Your task to perform on an android device: turn off picture-in-picture Image 0: 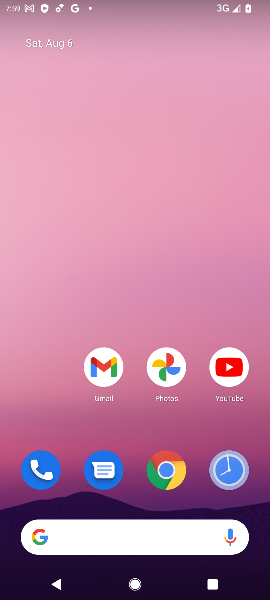
Step 0: press home button
Your task to perform on an android device: turn off picture-in-picture Image 1: 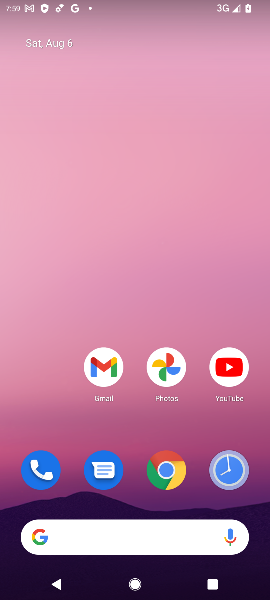
Step 1: drag from (121, 515) to (237, 88)
Your task to perform on an android device: turn off picture-in-picture Image 2: 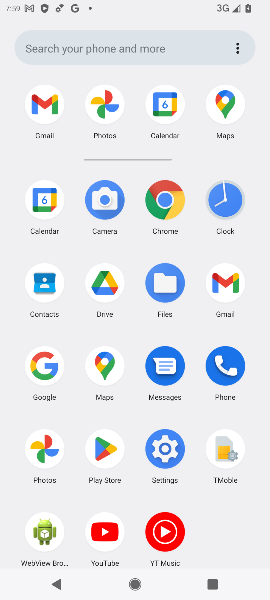
Step 2: click (173, 440)
Your task to perform on an android device: turn off picture-in-picture Image 3: 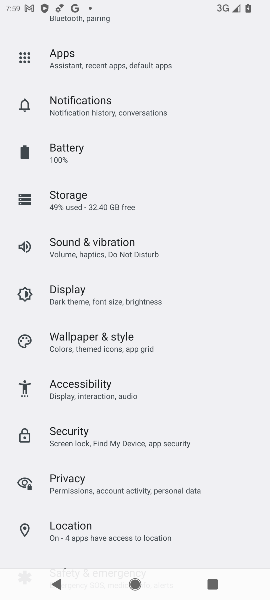
Step 3: click (121, 106)
Your task to perform on an android device: turn off picture-in-picture Image 4: 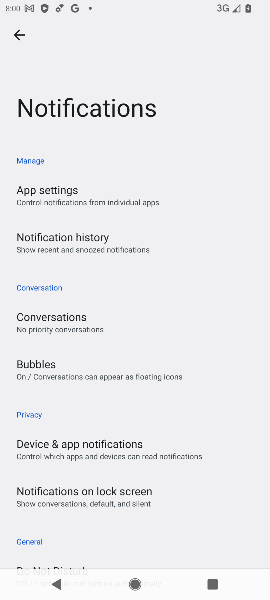
Step 4: task complete